Your task to perform on an android device: turn off notifications in google photos Image 0: 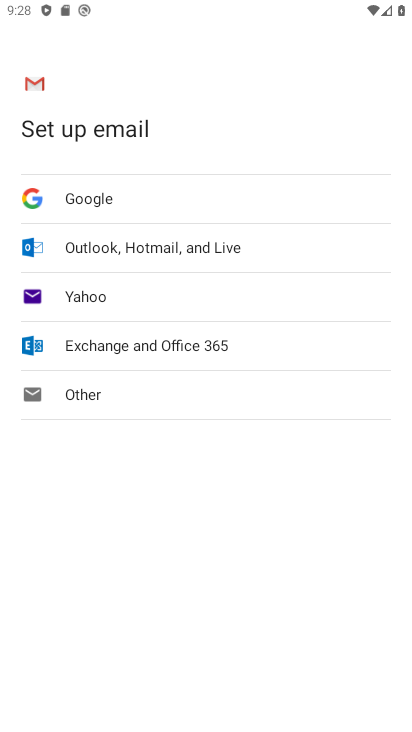
Step 0: press home button
Your task to perform on an android device: turn off notifications in google photos Image 1: 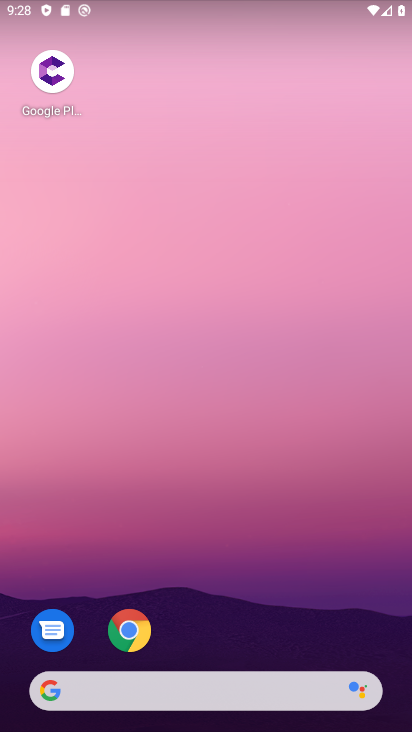
Step 1: drag from (54, 516) to (244, 92)
Your task to perform on an android device: turn off notifications in google photos Image 2: 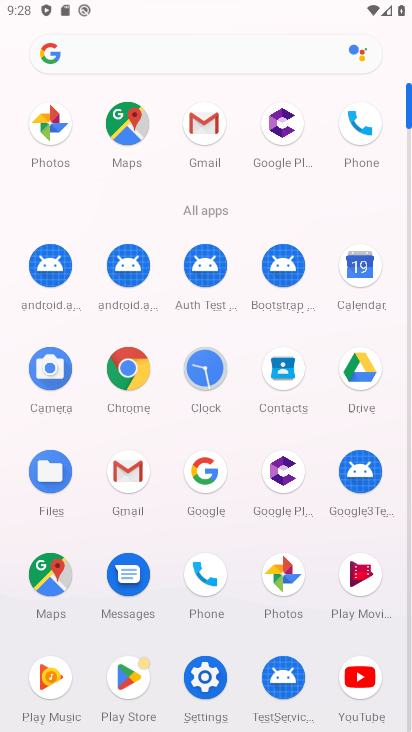
Step 2: click (219, 679)
Your task to perform on an android device: turn off notifications in google photos Image 3: 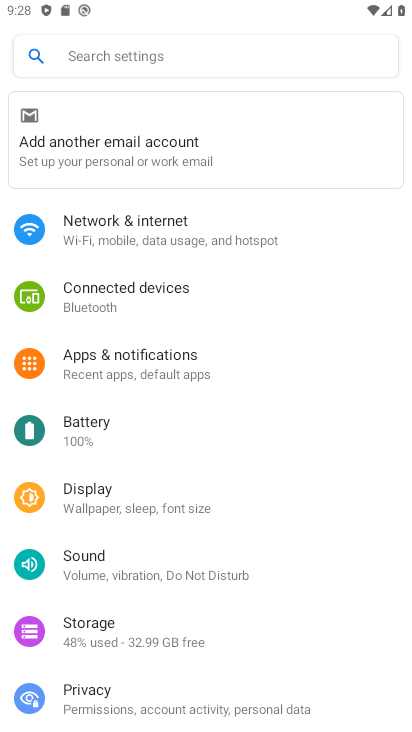
Step 3: click (112, 374)
Your task to perform on an android device: turn off notifications in google photos Image 4: 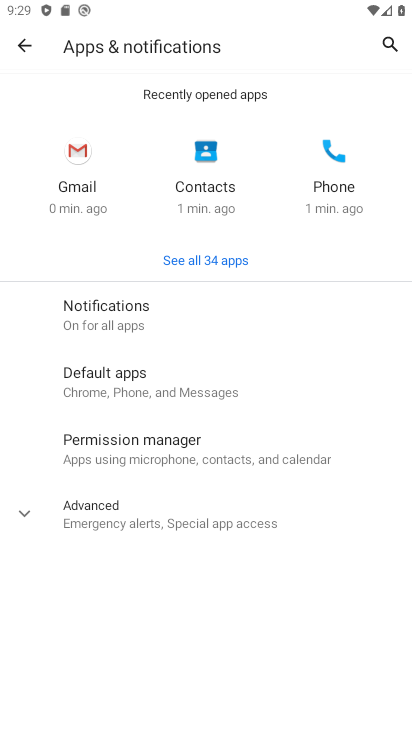
Step 4: click (221, 260)
Your task to perform on an android device: turn off notifications in google photos Image 5: 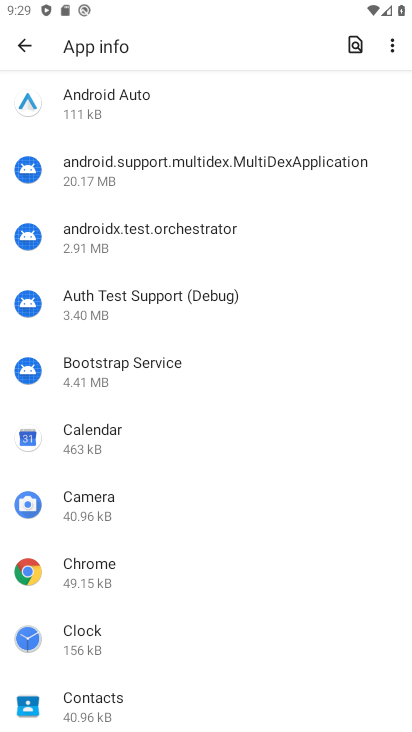
Step 5: drag from (149, 670) to (378, 98)
Your task to perform on an android device: turn off notifications in google photos Image 6: 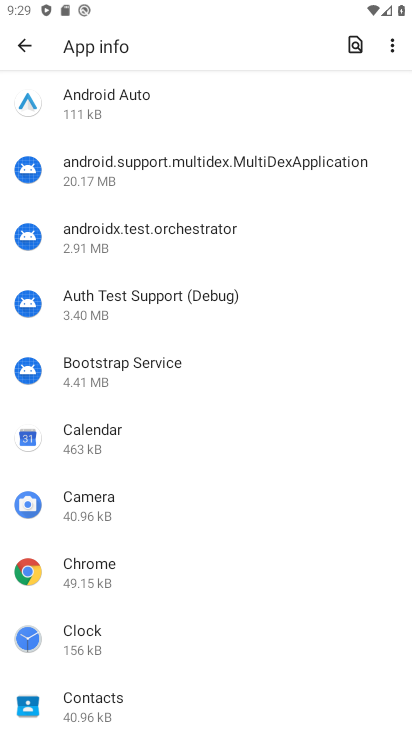
Step 6: drag from (32, 545) to (272, 86)
Your task to perform on an android device: turn off notifications in google photos Image 7: 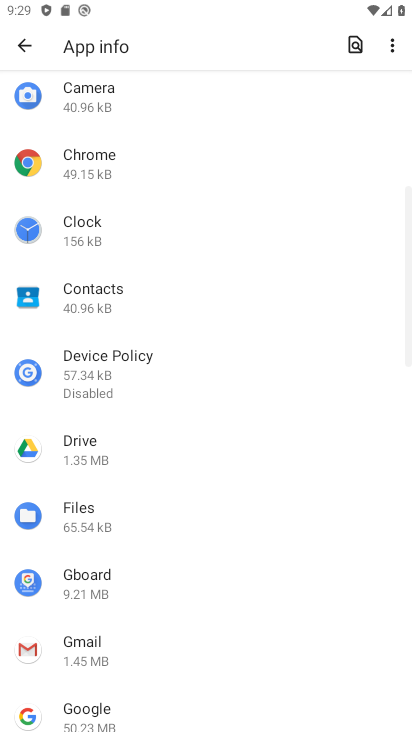
Step 7: drag from (49, 595) to (262, 184)
Your task to perform on an android device: turn off notifications in google photos Image 8: 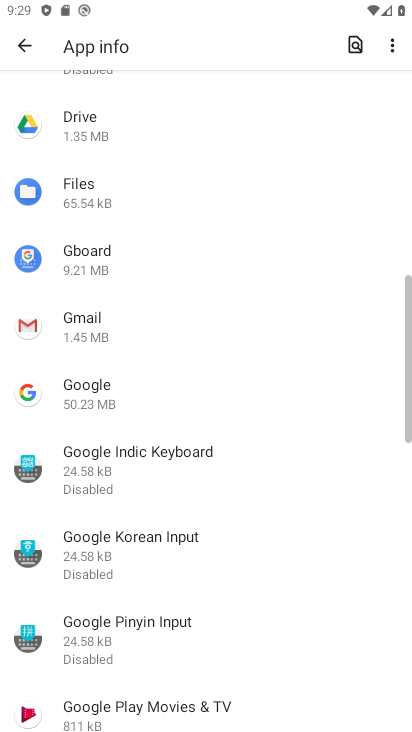
Step 8: drag from (25, 359) to (199, 70)
Your task to perform on an android device: turn off notifications in google photos Image 9: 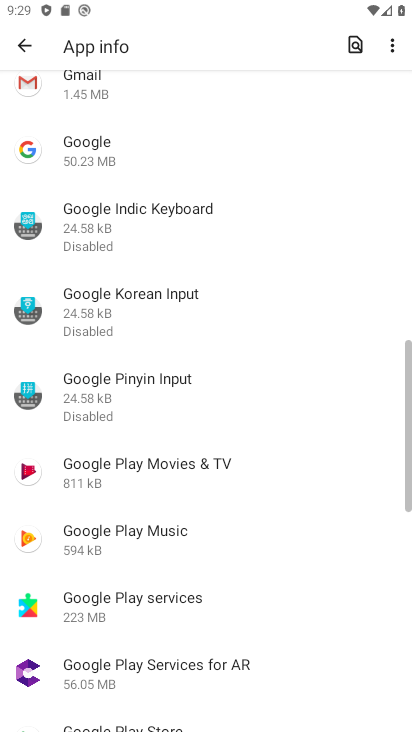
Step 9: drag from (33, 482) to (217, 132)
Your task to perform on an android device: turn off notifications in google photos Image 10: 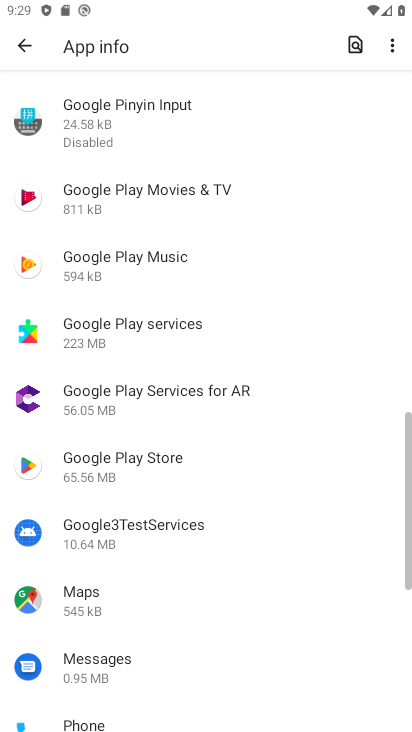
Step 10: drag from (69, 534) to (298, 104)
Your task to perform on an android device: turn off notifications in google photos Image 11: 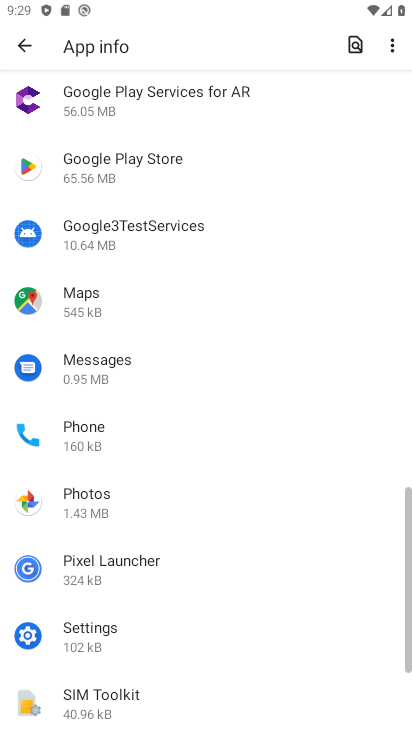
Step 11: click (39, 494)
Your task to perform on an android device: turn off notifications in google photos Image 12: 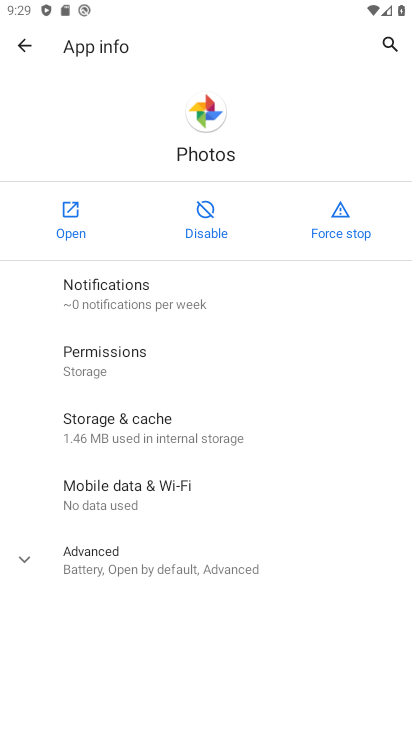
Step 12: click (191, 290)
Your task to perform on an android device: turn off notifications in google photos Image 13: 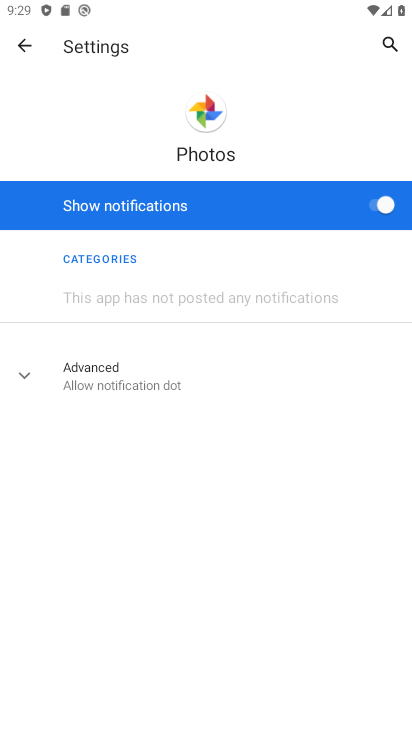
Step 13: click (390, 209)
Your task to perform on an android device: turn off notifications in google photos Image 14: 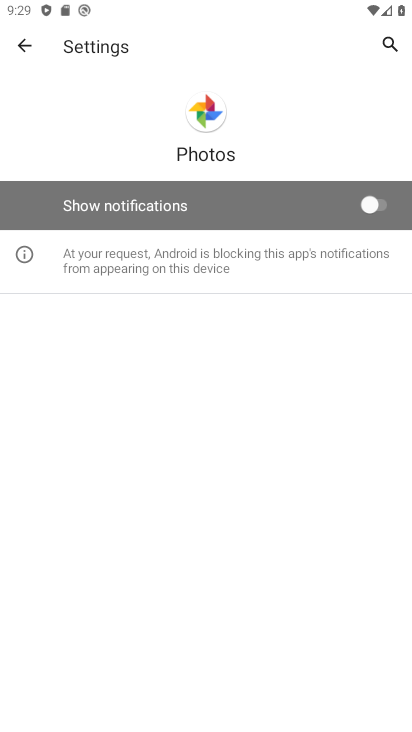
Step 14: task complete